Your task to perform on an android device: Show me popular videos on Youtube Image 0: 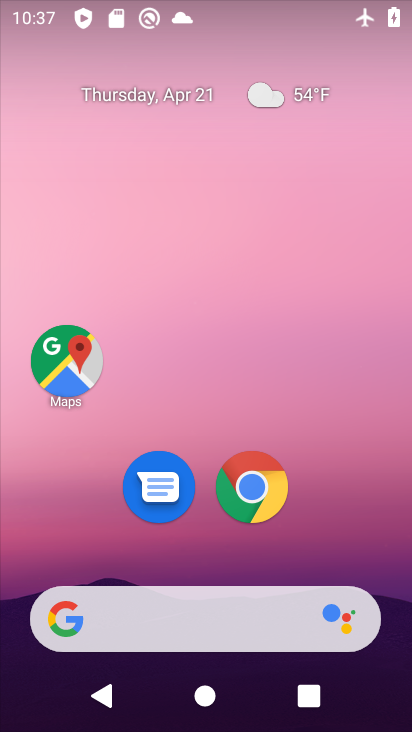
Step 0: drag from (355, 518) to (329, 181)
Your task to perform on an android device: Show me popular videos on Youtube Image 1: 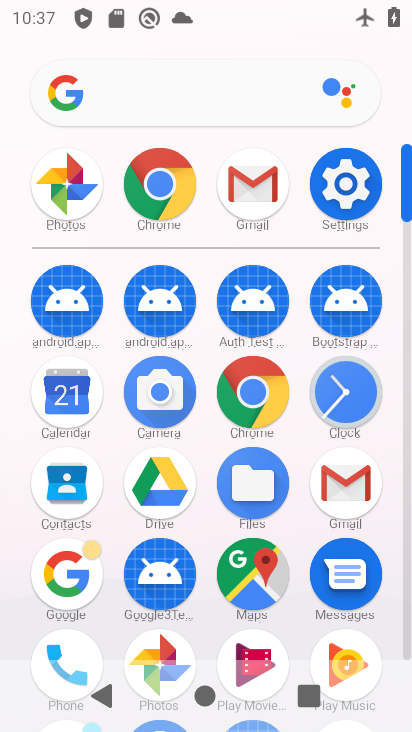
Step 1: drag from (296, 627) to (301, 248)
Your task to perform on an android device: Show me popular videos on Youtube Image 2: 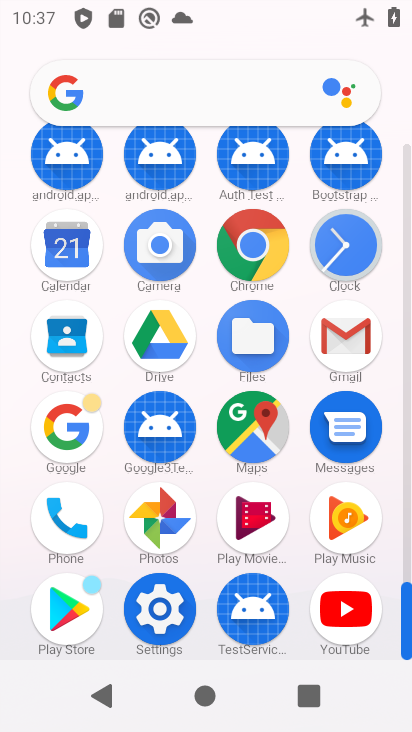
Step 2: click (346, 618)
Your task to perform on an android device: Show me popular videos on Youtube Image 3: 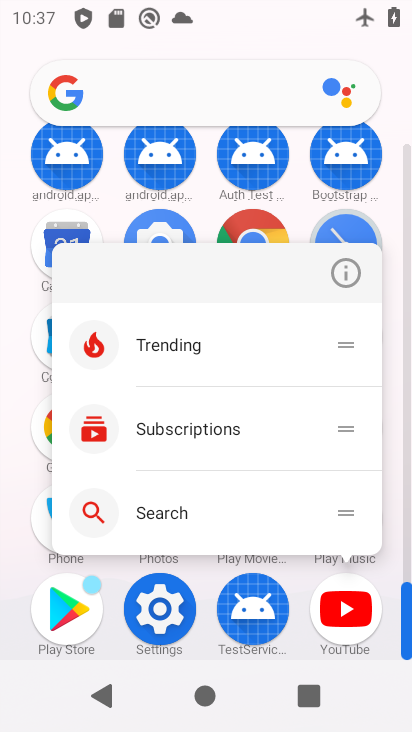
Step 3: click (347, 609)
Your task to perform on an android device: Show me popular videos on Youtube Image 4: 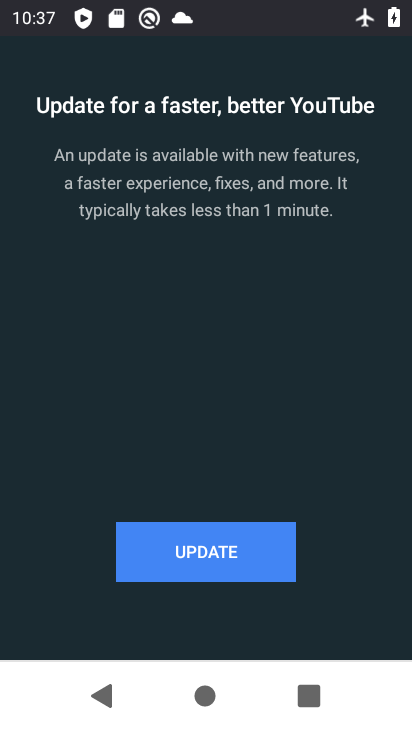
Step 4: click (234, 538)
Your task to perform on an android device: Show me popular videos on Youtube Image 5: 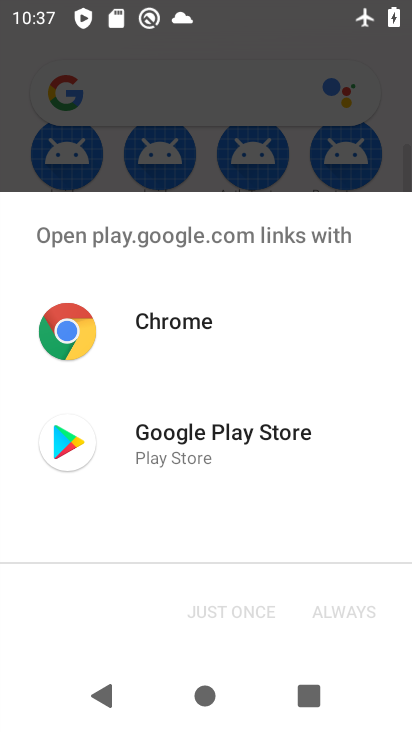
Step 5: click (220, 428)
Your task to perform on an android device: Show me popular videos on Youtube Image 6: 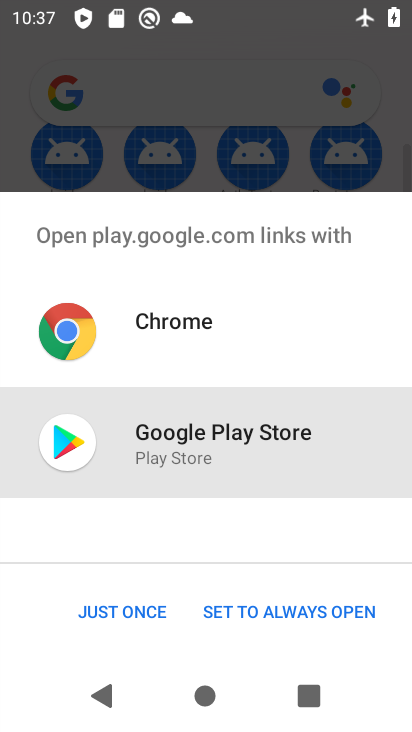
Step 6: click (122, 601)
Your task to perform on an android device: Show me popular videos on Youtube Image 7: 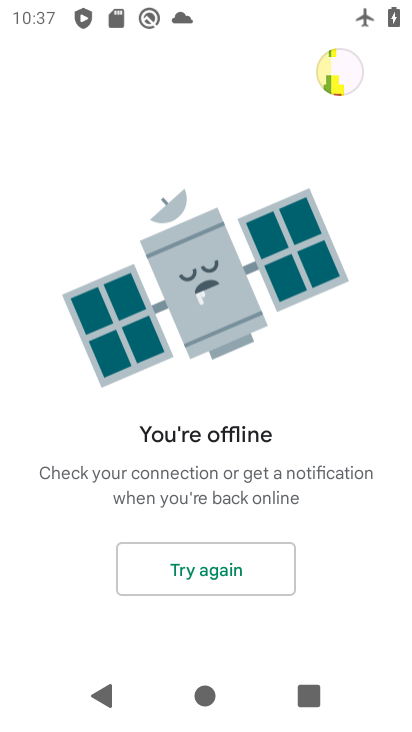
Step 7: task complete